Your task to perform on an android device: Open the phone app and click the voicemail tab. Image 0: 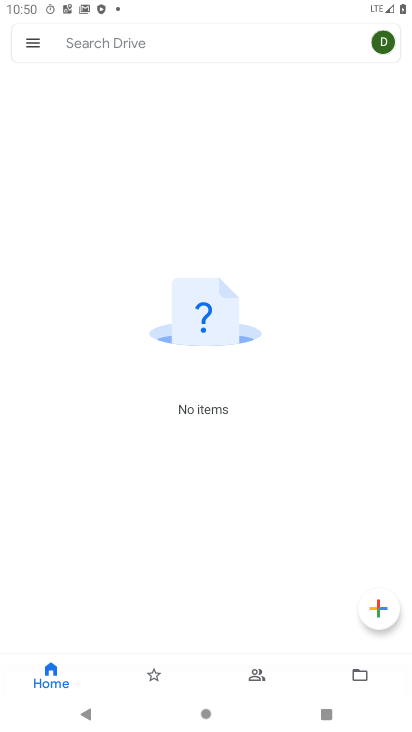
Step 0: press home button
Your task to perform on an android device: Open the phone app and click the voicemail tab. Image 1: 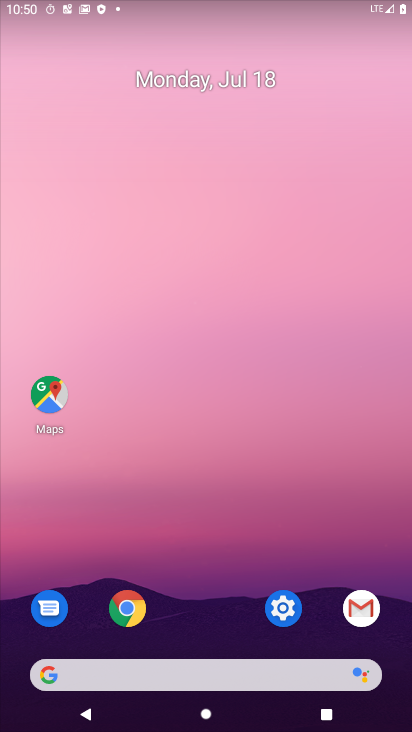
Step 1: drag from (346, 689) to (367, 197)
Your task to perform on an android device: Open the phone app and click the voicemail tab. Image 2: 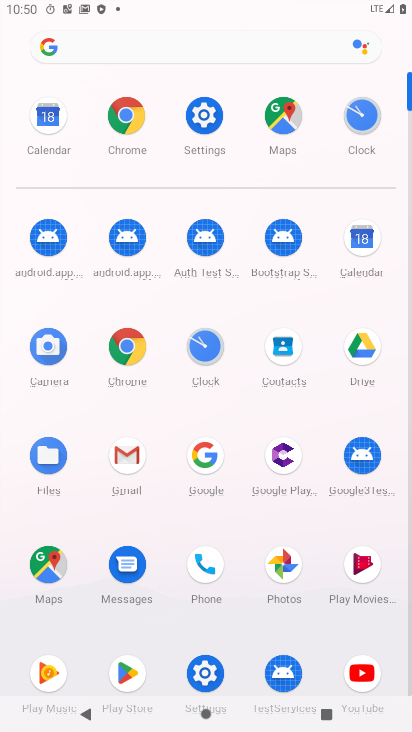
Step 2: click (351, 550)
Your task to perform on an android device: Open the phone app and click the voicemail tab. Image 3: 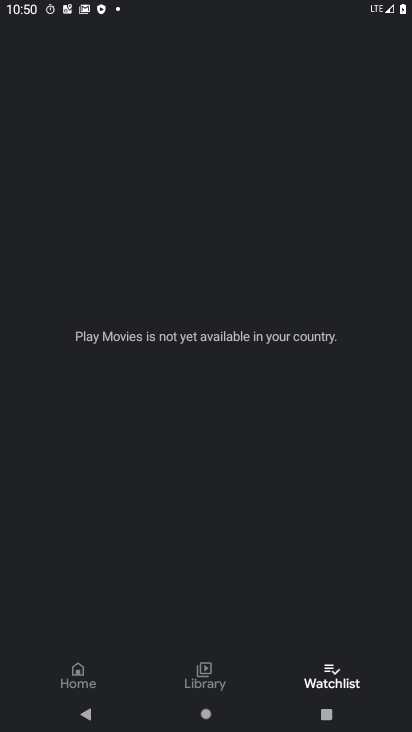
Step 3: click (328, 676)
Your task to perform on an android device: Open the phone app and click the voicemail tab. Image 4: 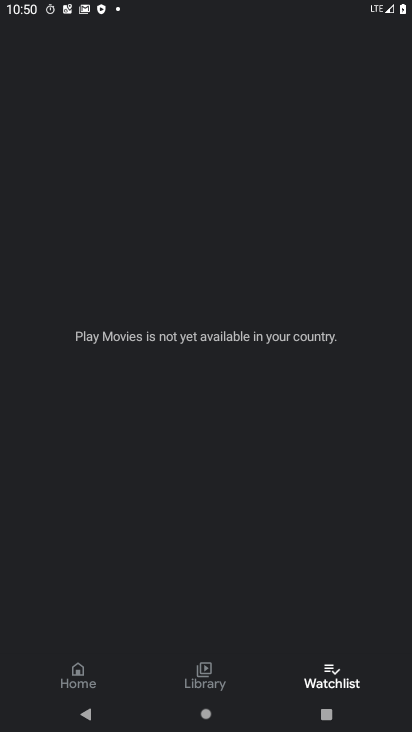
Step 4: press home button
Your task to perform on an android device: Open the phone app and click the voicemail tab. Image 5: 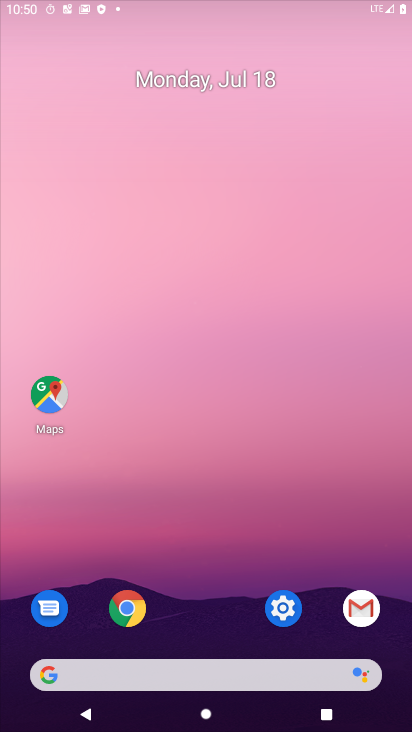
Step 5: drag from (245, 694) to (161, 224)
Your task to perform on an android device: Open the phone app and click the voicemail tab. Image 6: 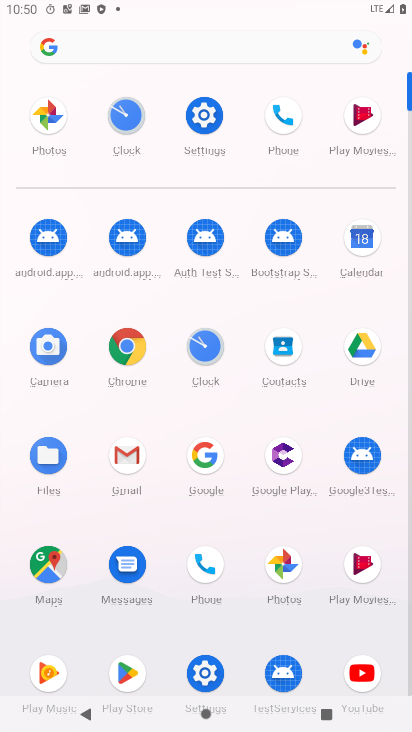
Step 6: click (270, 113)
Your task to perform on an android device: Open the phone app and click the voicemail tab. Image 7: 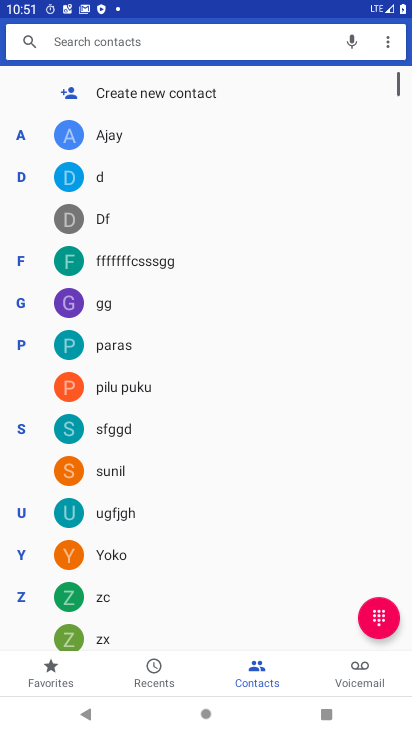
Step 7: click (342, 669)
Your task to perform on an android device: Open the phone app and click the voicemail tab. Image 8: 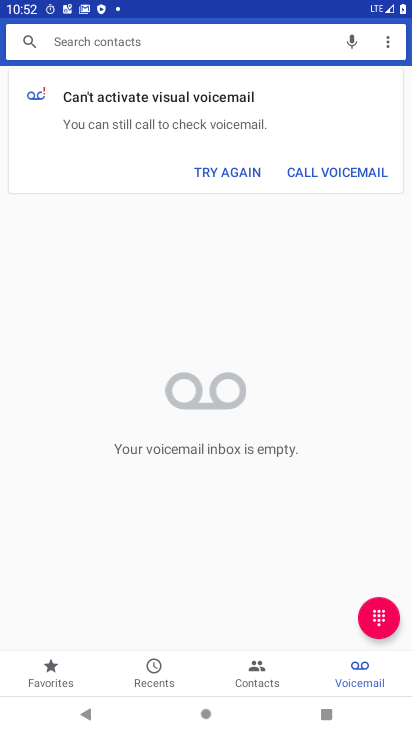
Step 8: task complete